Your task to perform on an android device: all mails in gmail Image 0: 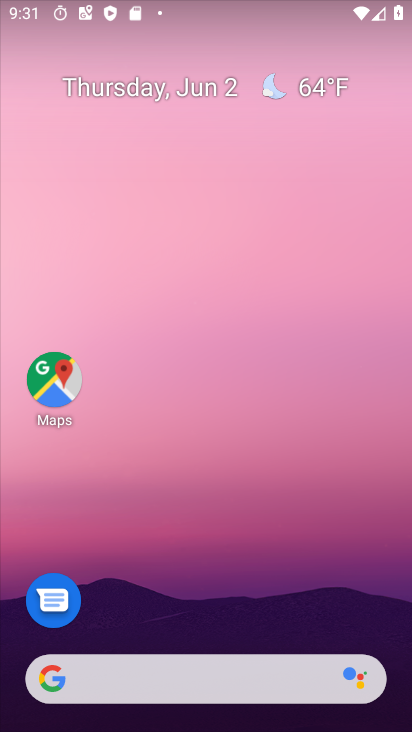
Step 0: drag from (164, 607) to (69, 10)
Your task to perform on an android device: all mails in gmail Image 1: 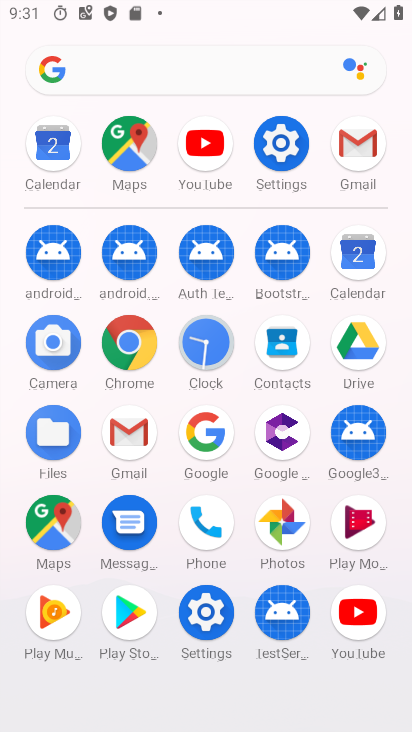
Step 1: click (123, 431)
Your task to perform on an android device: all mails in gmail Image 2: 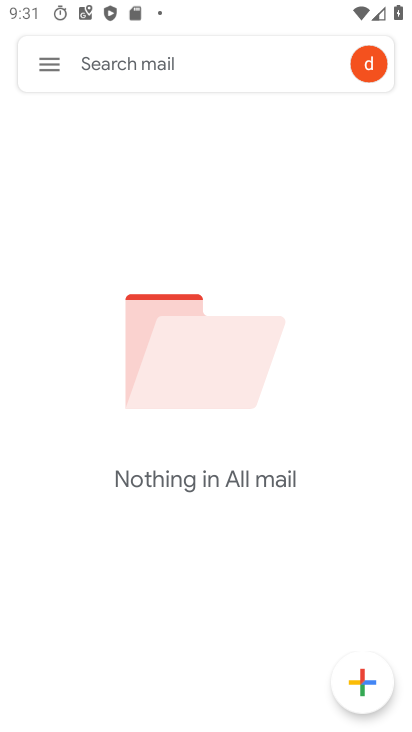
Step 2: task complete